Your task to perform on an android device: What's the weather going to be this weekend? Image 0: 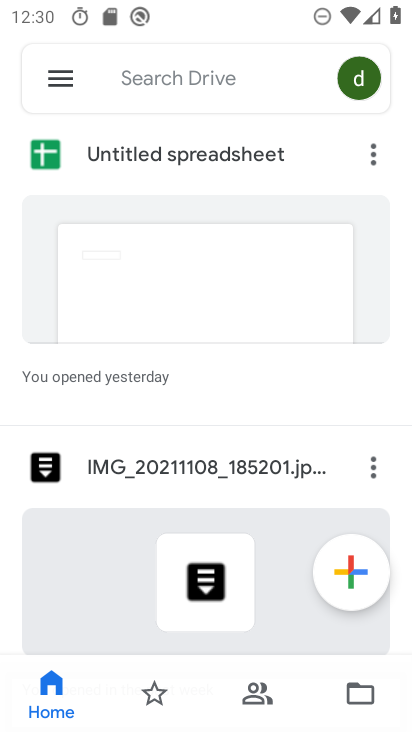
Step 0: press back button
Your task to perform on an android device: What's the weather going to be this weekend? Image 1: 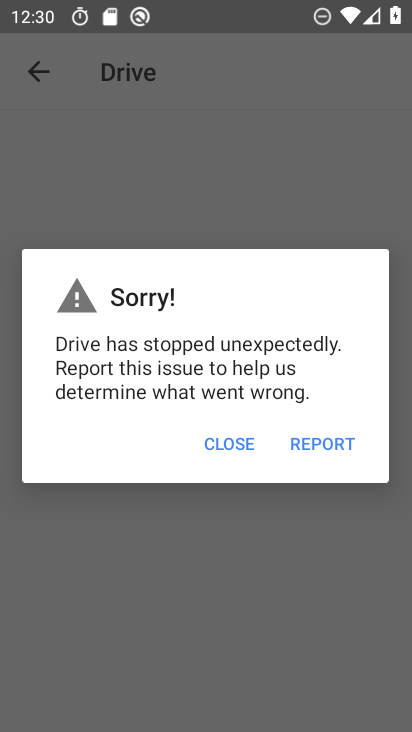
Step 1: press home button
Your task to perform on an android device: What's the weather going to be this weekend? Image 2: 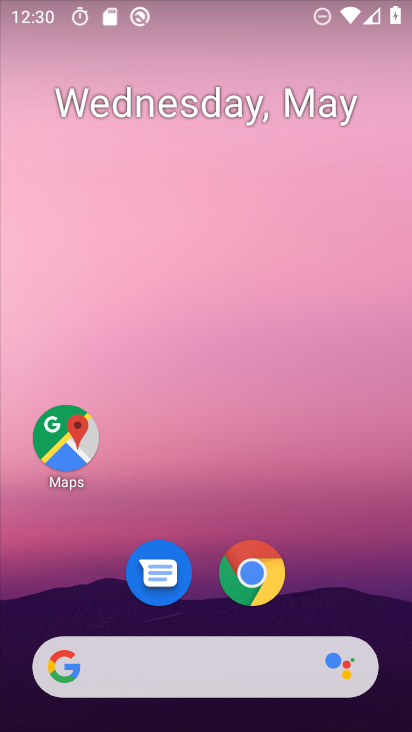
Step 2: drag from (326, 506) to (267, 53)
Your task to perform on an android device: What's the weather going to be this weekend? Image 3: 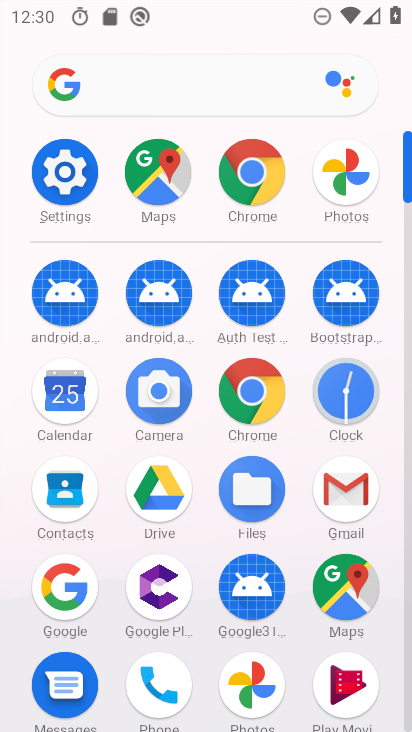
Step 3: click (246, 167)
Your task to perform on an android device: What's the weather going to be this weekend? Image 4: 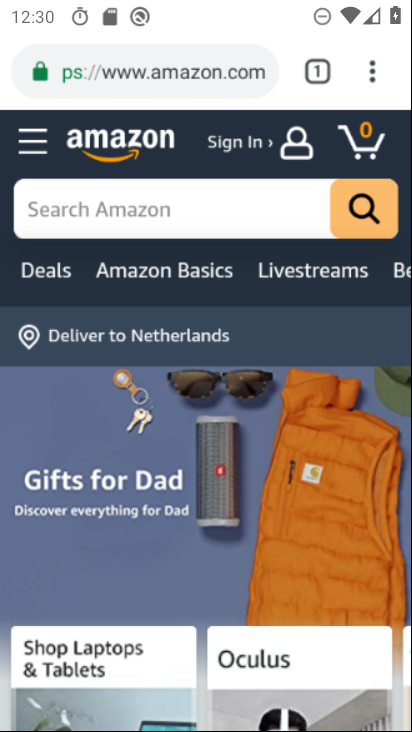
Step 4: click (212, 66)
Your task to perform on an android device: What's the weather going to be this weekend? Image 5: 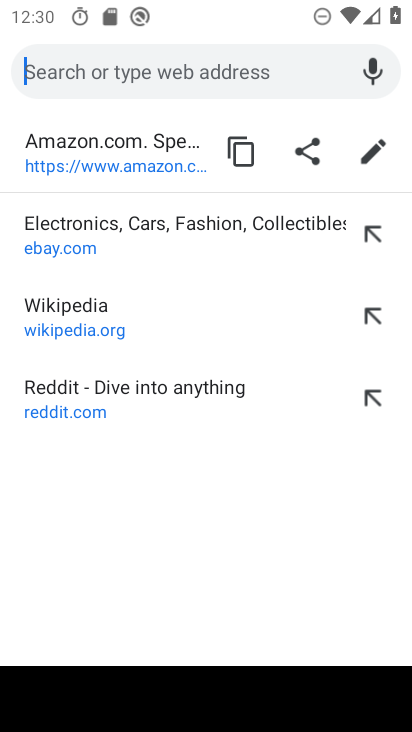
Step 5: type "What's the weather going to be this weekend?"
Your task to perform on an android device: What's the weather going to be this weekend? Image 6: 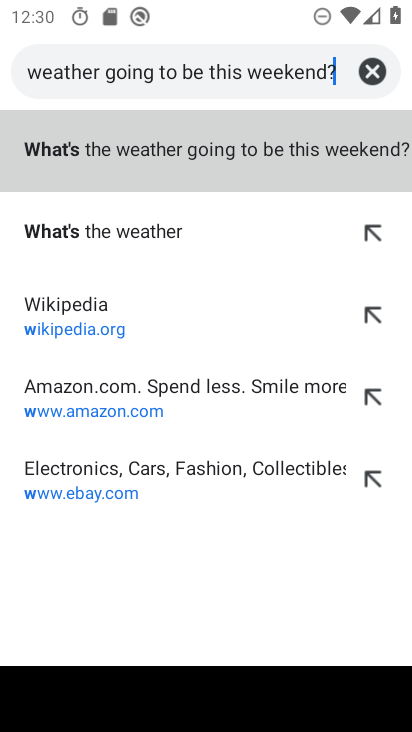
Step 6: type ""
Your task to perform on an android device: What's the weather going to be this weekend? Image 7: 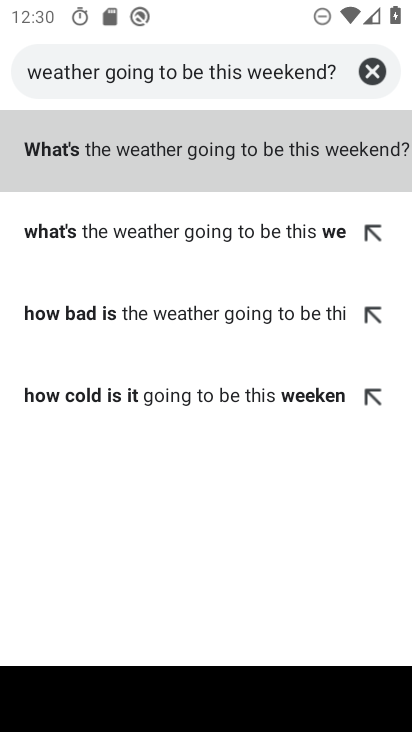
Step 7: click (156, 131)
Your task to perform on an android device: What's the weather going to be this weekend? Image 8: 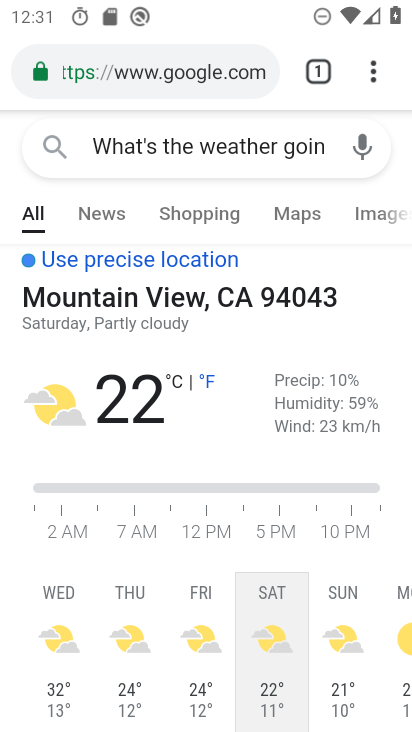
Step 8: task complete